Your task to perform on an android device: Go to notification settings Image 0: 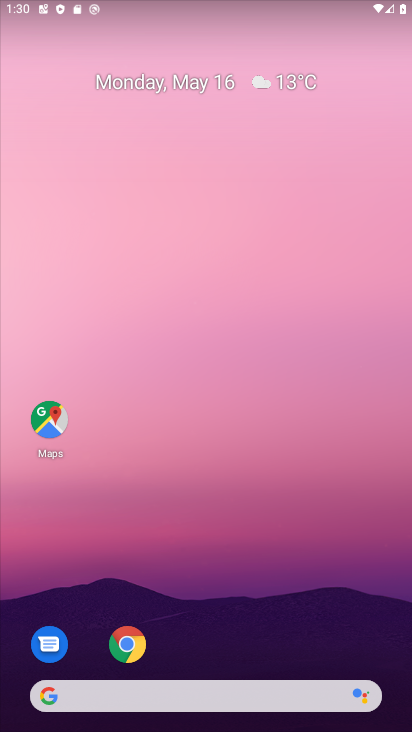
Step 0: drag from (236, 679) to (188, 115)
Your task to perform on an android device: Go to notification settings Image 1: 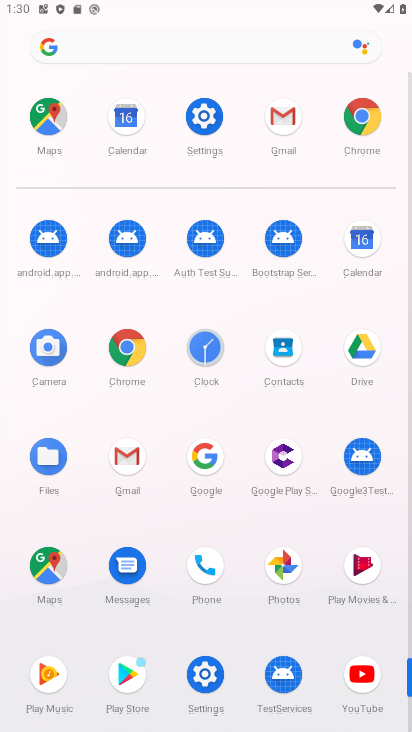
Step 1: click (213, 140)
Your task to perform on an android device: Go to notification settings Image 2: 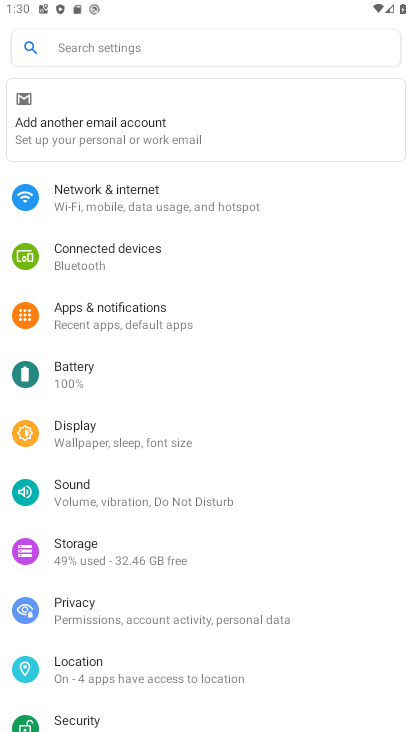
Step 2: click (177, 319)
Your task to perform on an android device: Go to notification settings Image 3: 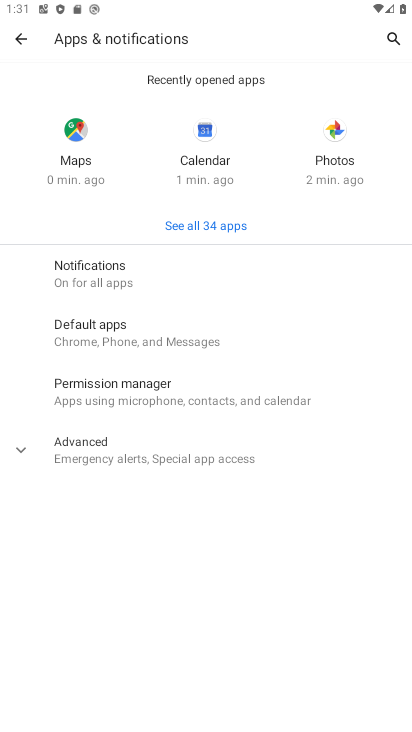
Step 3: click (153, 295)
Your task to perform on an android device: Go to notification settings Image 4: 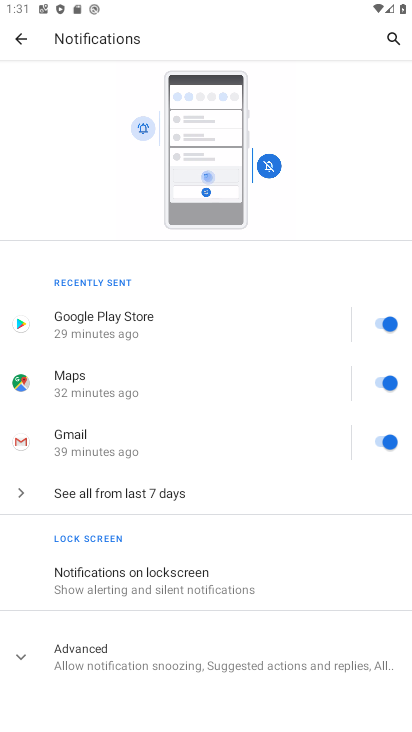
Step 4: task complete